Your task to perform on an android device: Go to Reddit.com Image 0: 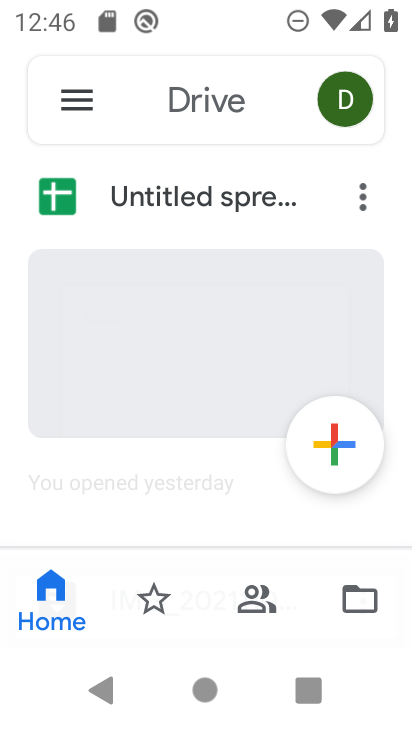
Step 0: press home button
Your task to perform on an android device: Go to Reddit.com Image 1: 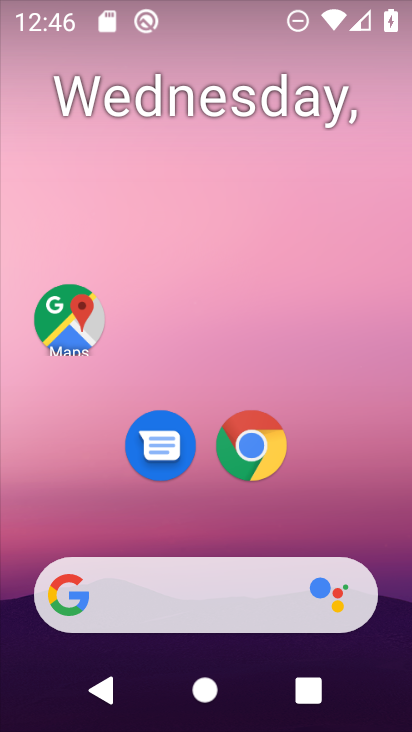
Step 1: drag from (393, 615) to (257, 34)
Your task to perform on an android device: Go to Reddit.com Image 2: 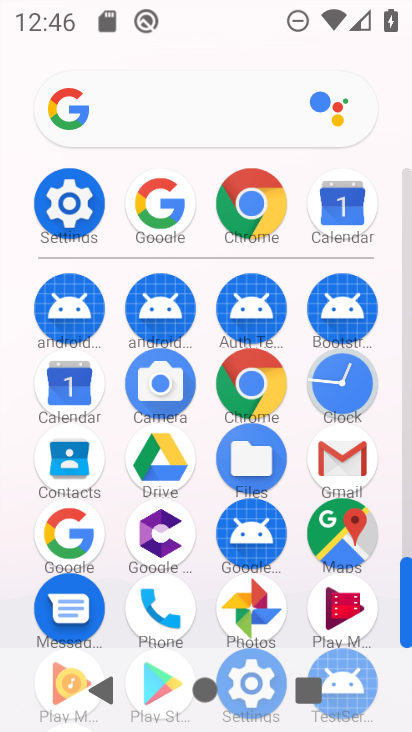
Step 2: click (38, 534)
Your task to perform on an android device: Go to Reddit.com Image 3: 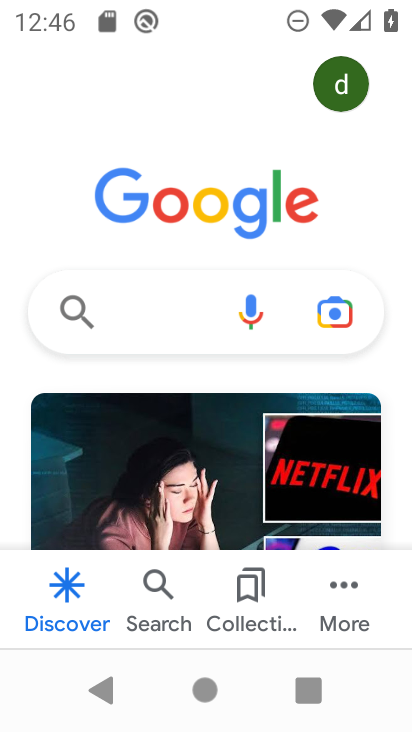
Step 3: click (116, 315)
Your task to perform on an android device: Go to Reddit.com Image 4: 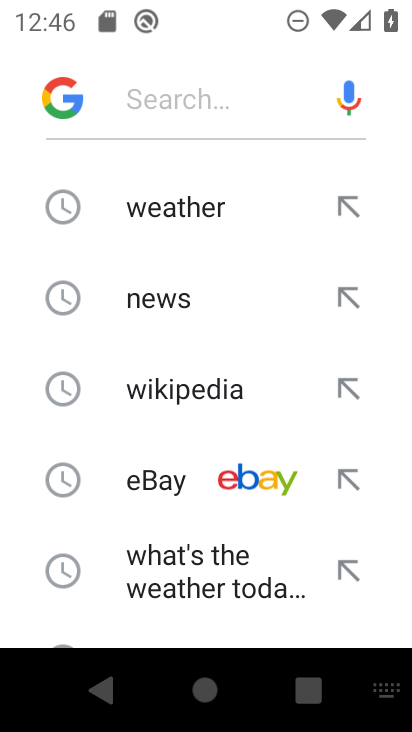
Step 4: click (139, 555)
Your task to perform on an android device: Go to Reddit.com Image 5: 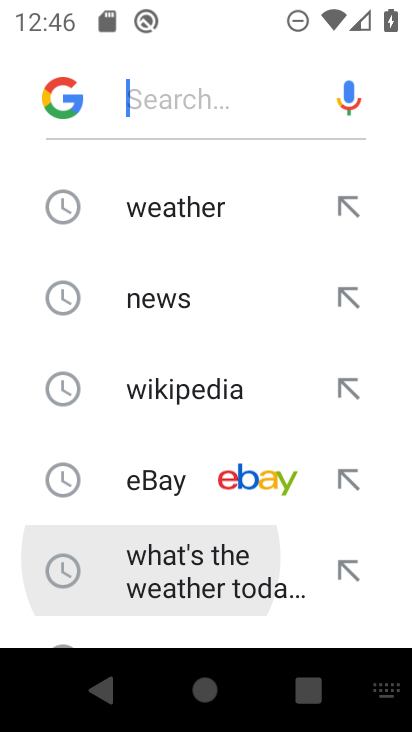
Step 5: drag from (170, 486) to (187, 143)
Your task to perform on an android device: Go to Reddit.com Image 6: 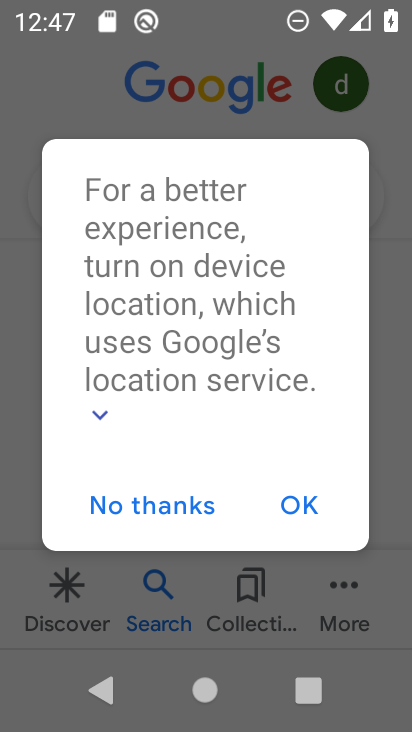
Step 6: click (186, 503)
Your task to perform on an android device: Go to Reddit.com Image 7: 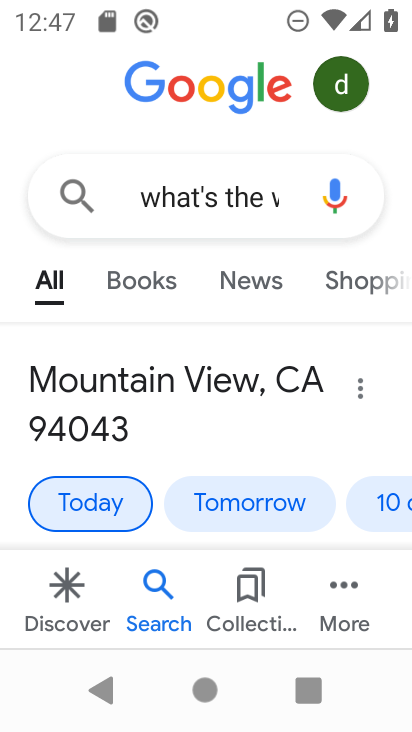
Step 7: press back button
Your task to perform on an android device: Go to Reddit.com Image 8: 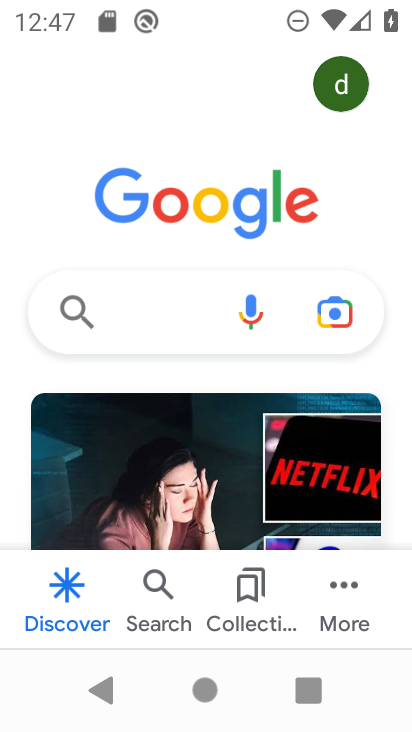
Step 8: click (146, 320)
Your task to perform on an android device: Go to Reddit.com Image 9: 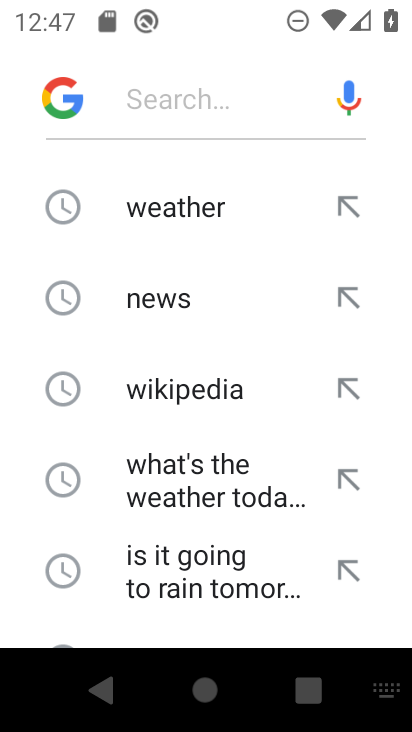
Step 9: drag from (131, 559) to (198, 131)
Your task to perform on an android device: Go to Reddit.com Image 10: 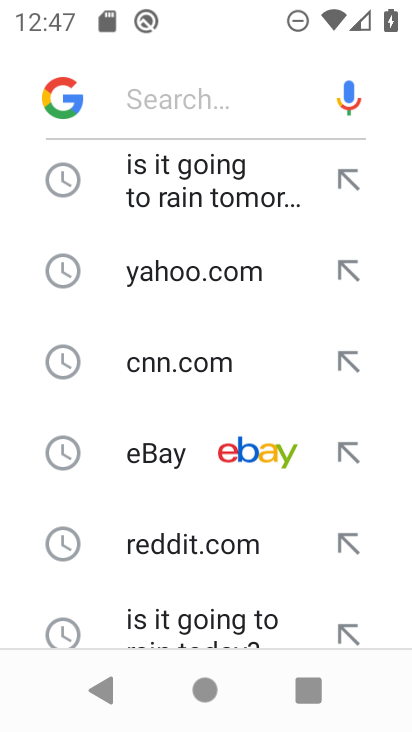
Step 10: click (139, 540)
Your task to perform on an android device: Go to Reddit.com Image 11: 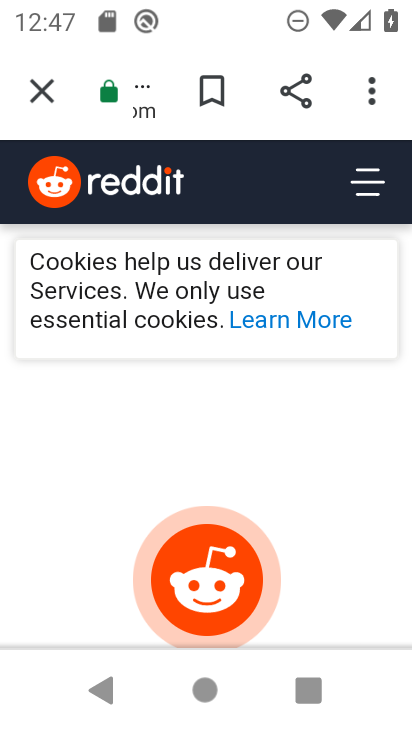
Step 11: task complete